Your task to perform on an android device: Is it going to rain today? Image 0: 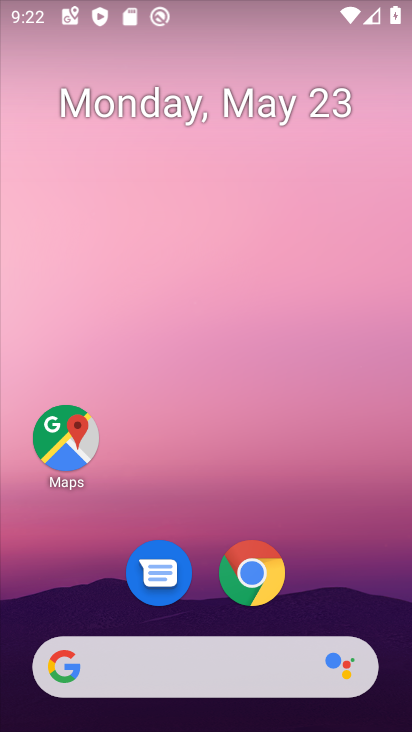
Step 0: click (214, 672)
Your task to perform on an android device: Is it going to rain today? Image 1: 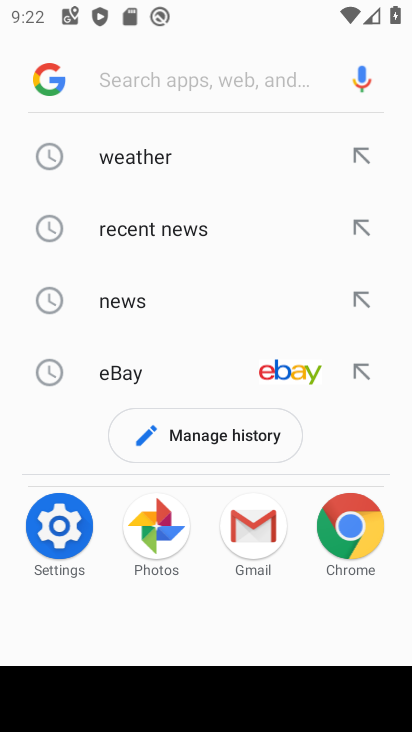
Step 1: click (167, 156)
Your task to perform on an android device: Is it going to rain today? Image 2: 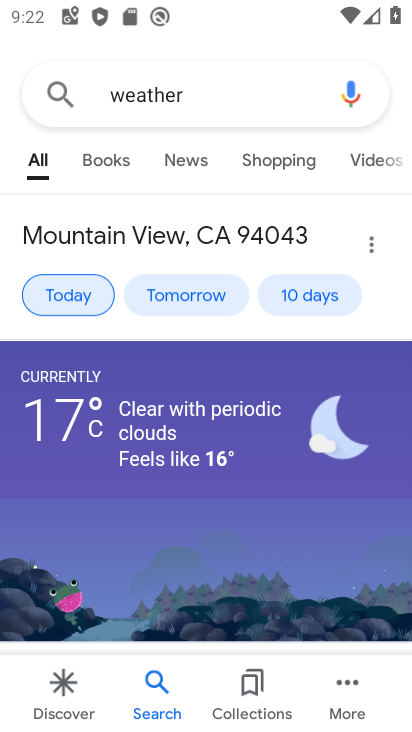
Step 2: task complete